Your task to perform on an android device: What's the weather? Image 0: 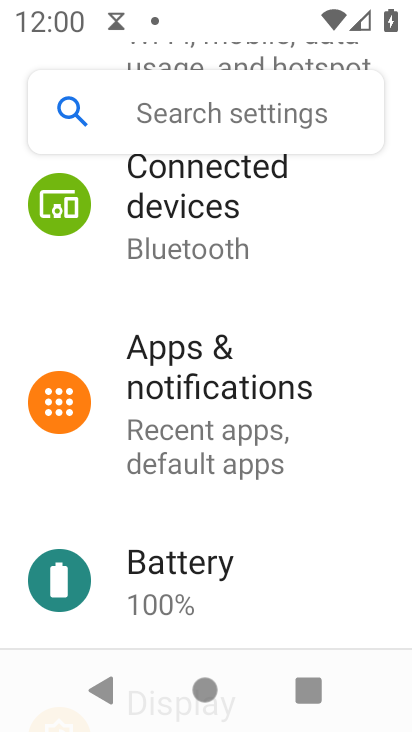
Step 0: press home button
Your task to perform on an android device: What's the weather? Image 1: 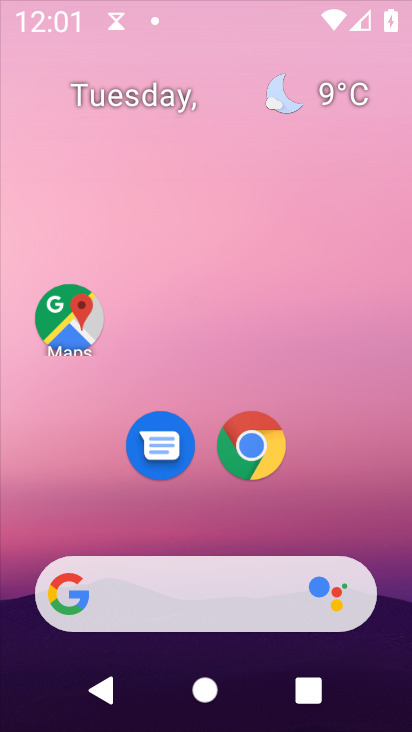
Step 1: drag from (288, 623) to (315, 59)
Your task to perform on an android device: What's the weather? Image 2: 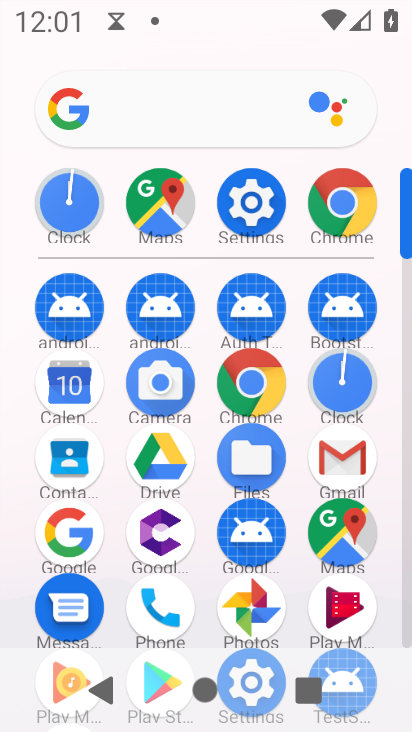
Step 2: click (265, 381)
Your task to perform on an android device: What's the weather? Image 3: 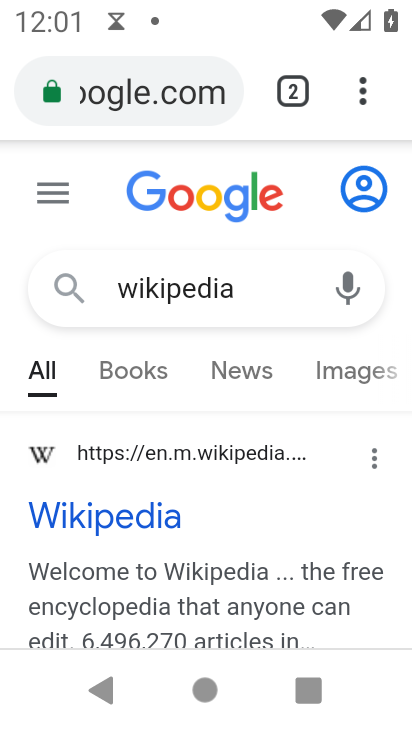
Step 3: click (204, 102)
Your task to perform on an android device: What's the weather? Image 4: 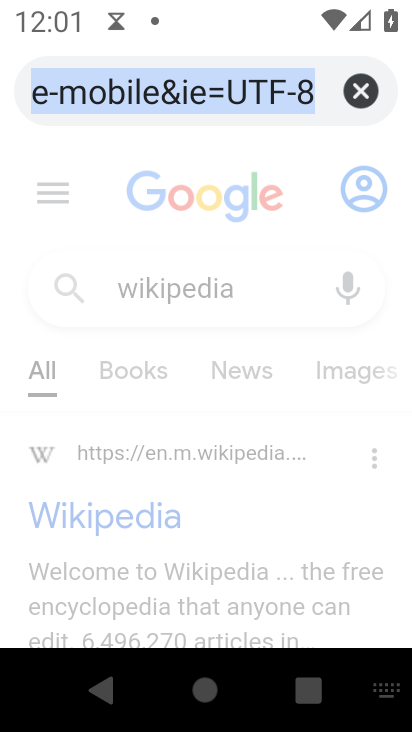
Step 4: click (355, 86)
Your task to perform on an android device: What's the weather? Image 5: 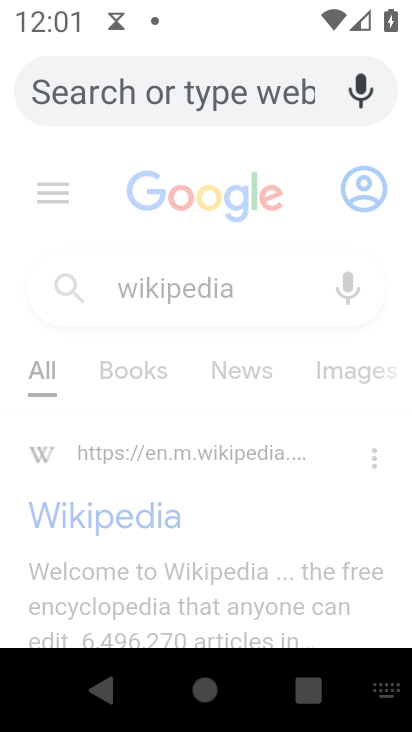
Step 5: type "weather"
Your task to perform on an android device: What's the weather? Image 6: 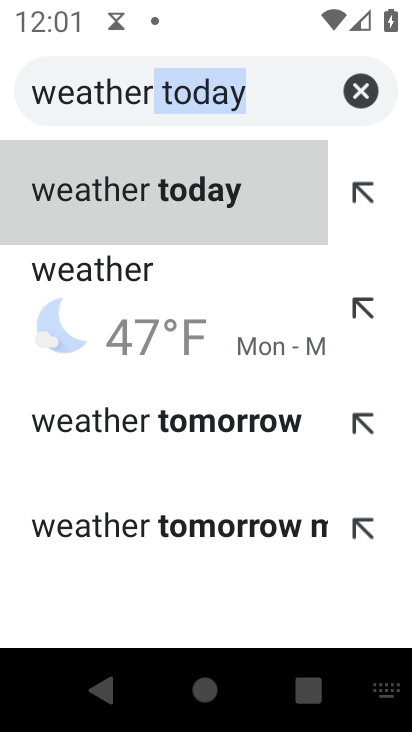
Step 6: click (236, 207)
Your task to perform on an android device: What's the weather? Image 7: 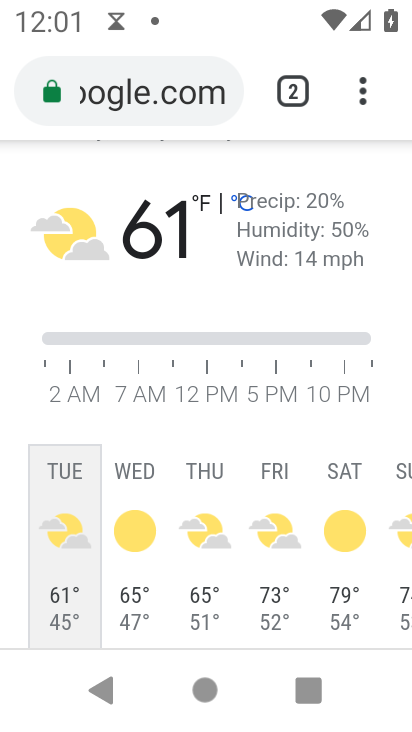
Step 7: task complete